Your task to perform on an android device: turn off picture-in-picture Image 0: 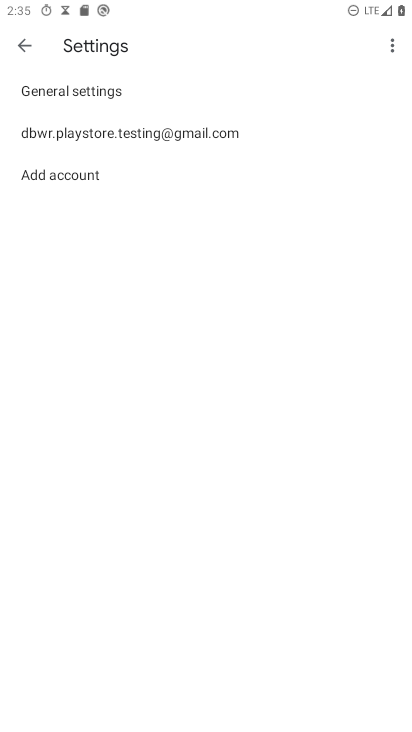
Step 0: press home button
Your task to perform on an android device: turn off picture-in-picture Image 1: 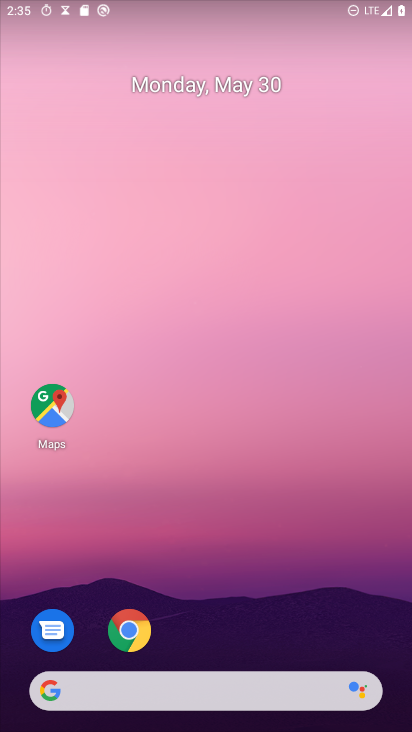
Step 1: drag from (246, 689) to (240, 85)
Your task to perform on an android device: turn off picture-in-picture Image 2: 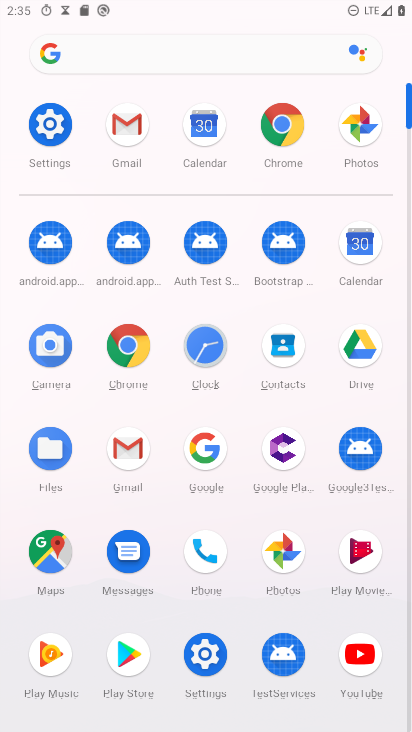
Step 2: click (206, 661)
Your task to perform on an android device: turn off picture-in-picture Image 3: 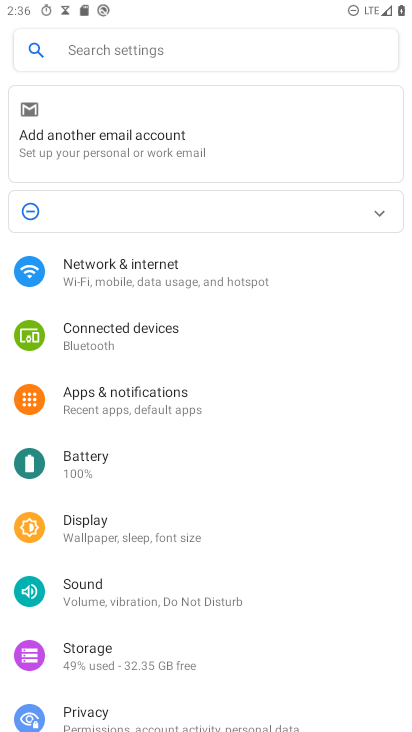
Step 3: click (122, 49)
Your task to perform on an android device: turn off picture-in-picture Image 4: 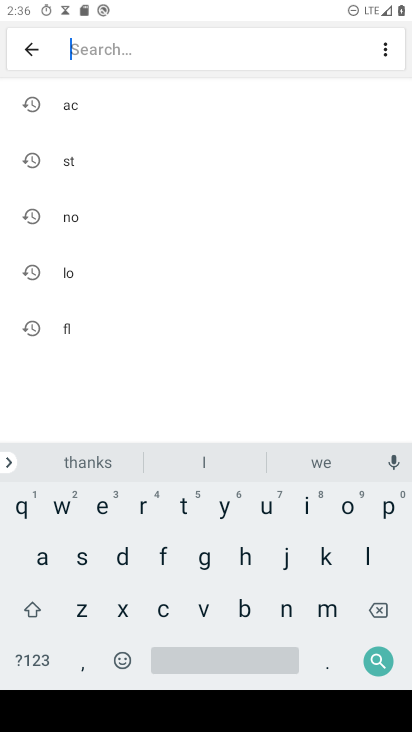
Step 4: click (385, 511)
Your task to perform on an android device: turn off picture-in-picture Image 5: 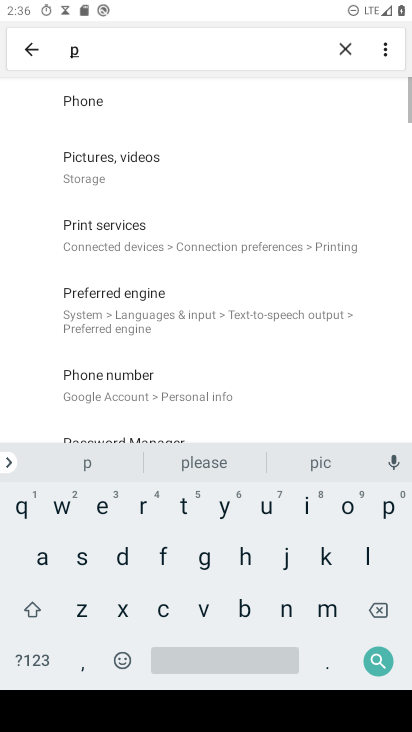
Step 5: click (303, 511)
Your task to perform on an android device: turn off picture-in-picture Image 6: 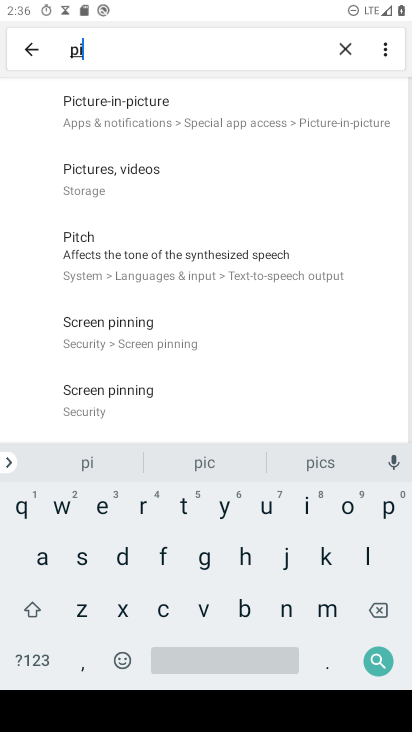
Step 6: click (129, 120)
Your task to perform on an android device: turn off picture-in-picture Image 7: 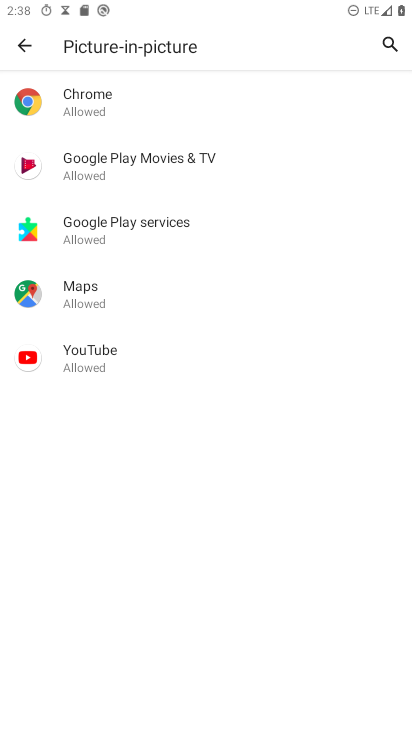
Step 7: task complete